Your task to perform on an android device: Show me popular games on the Play Store Image 0: 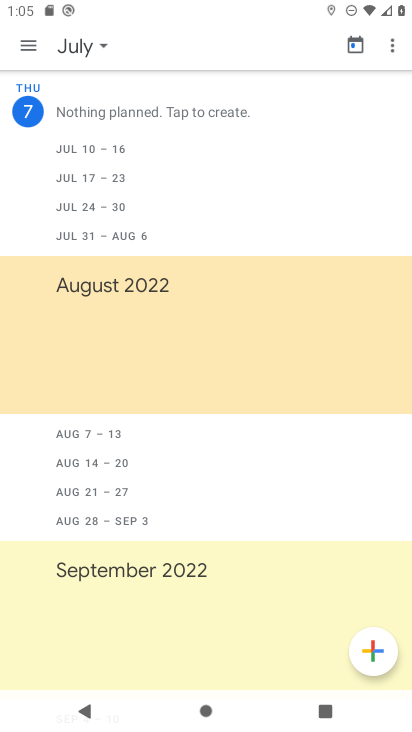
Step 0: press home button
Your task to perform on an android device: Show me popular games on the Play Store Image 1: 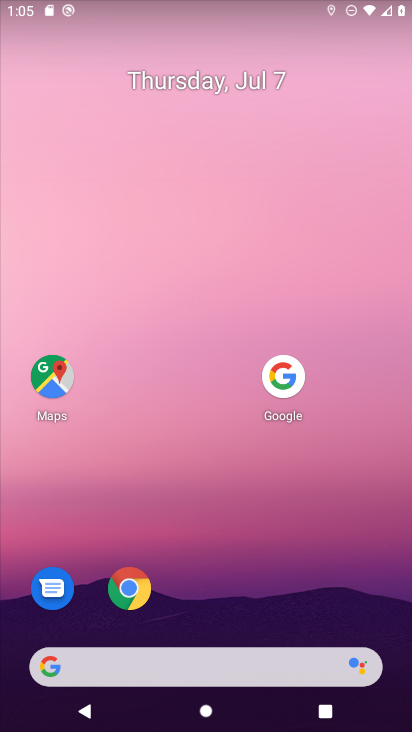
Step 1: drag from (108, 670) to (244, 99)
Your task to perform on an android device: Show me popular games on the Play Store Image 2: 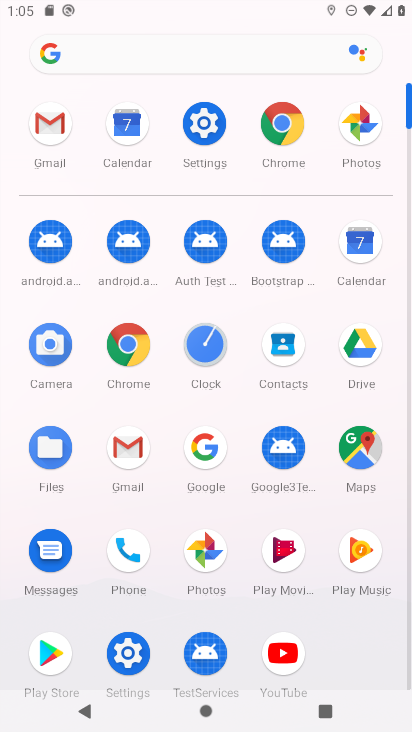
Step 2: click (51, 652)
Your task to perform on an android device: Show me popular games on the Play Store Image 3: 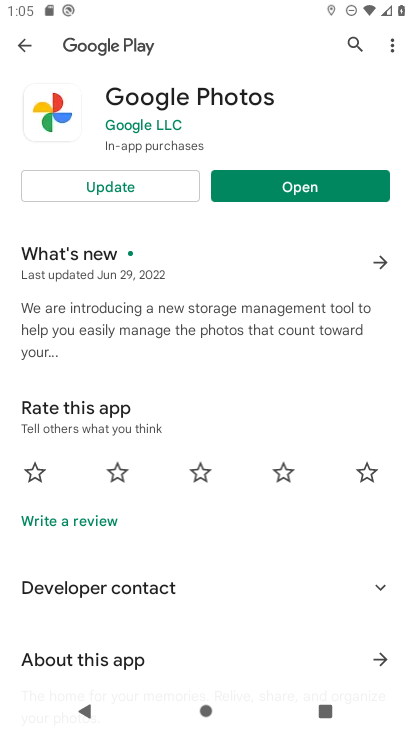
Step 3: click (24, 43)
Your task to perform on an android device: Show me popular games on the Play Store Image 4: 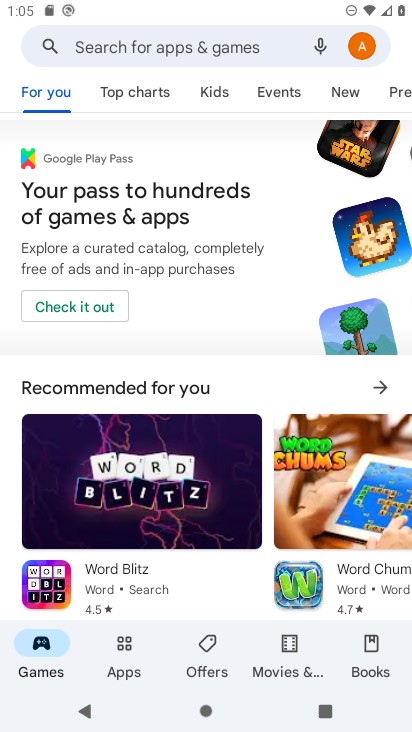
Step 4: drag from (168, 541) to (271, 106)
Your task to perform on an android device: Show me popular games on the Play Store Image 5: 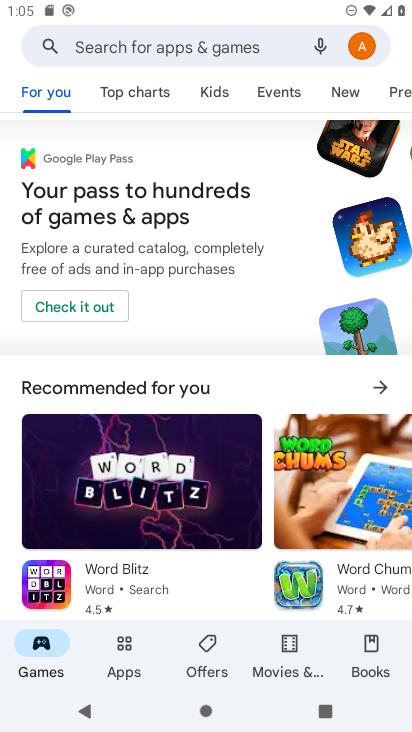
Step 5: drag from (202, 401) to (314, 0)
Your task to perform on an android device: Show me popular games on the Play Store Image 6: 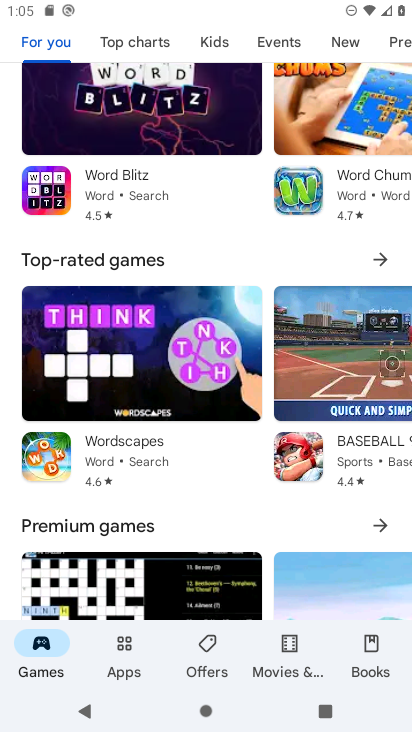
Step 6: click (374, 262)
Your task to perform on an android device: Show me popular games on the Play Store Image 7: 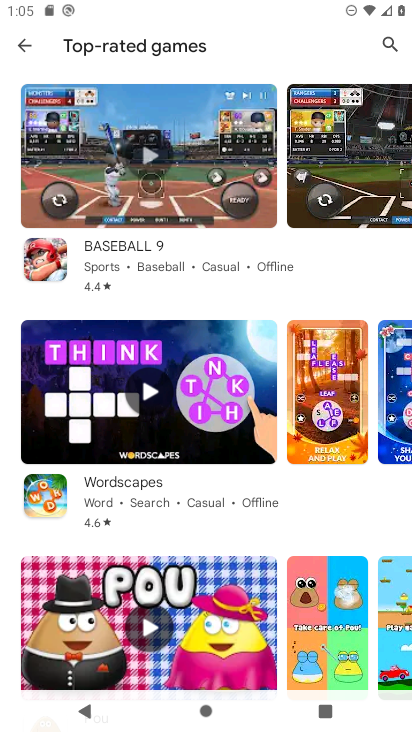
Step 7: task complete